Your task to perform on an android device: Open Maps and search for coffee Image 0: 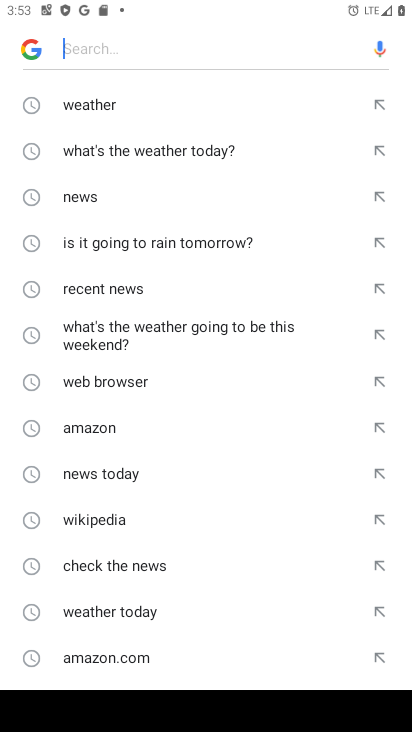
Step 0: press back button
Your task to perform on an android device: Open Maps and search for coffee Image 1: 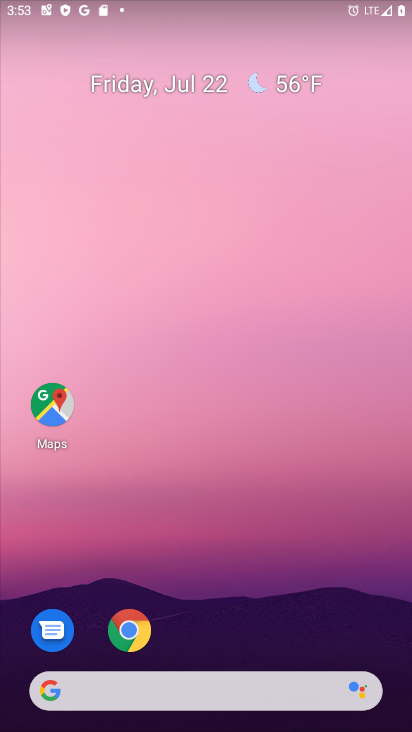
Step 1: click (37, 394)
Your task to perform on an android device: Open Maps and search for coffee Image 2: 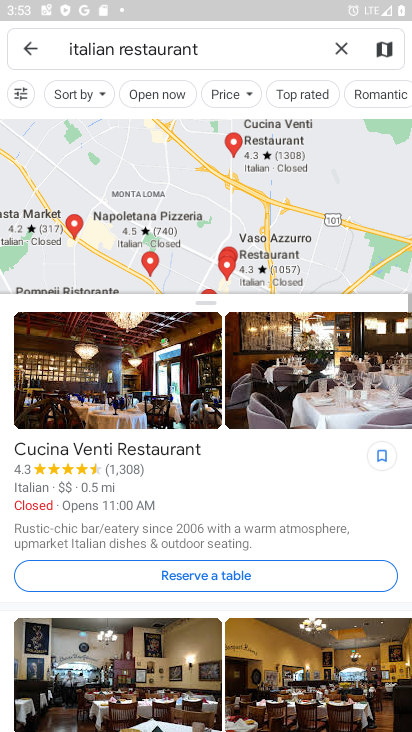
Step 2: click (344, 47)
Your task to perform on an android device: Open Maps and search for coffee Image 3: 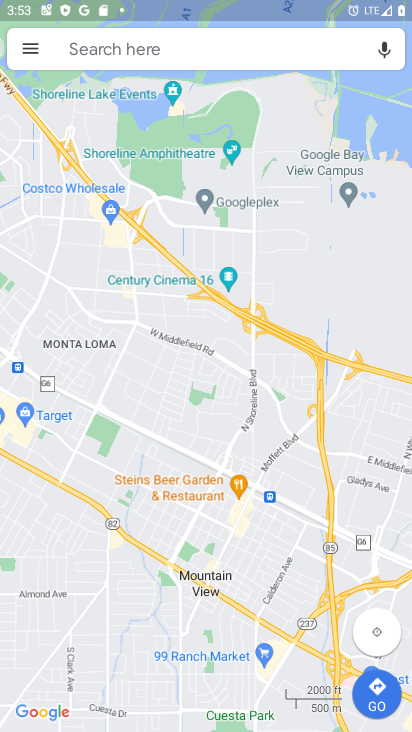
Step 3: click (174, 50)
Your task to perform on an android device: Open Maps and search for coffee Image 4: 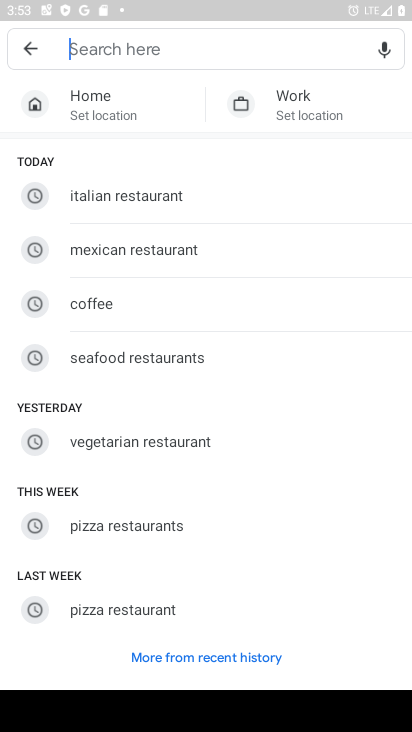
Step 4: click (88, 305)
Your task to perform on an android device: Open Maps and search for coffee Image 5: 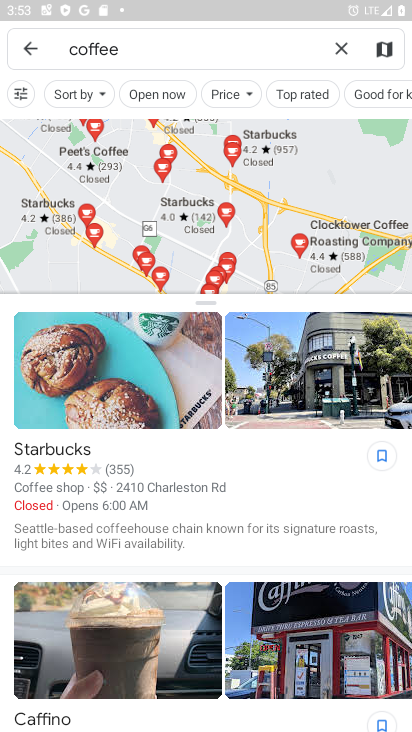
Step 5: task complete